Your task to perform on an android device: turn off data saver in the chrome app Image 0: 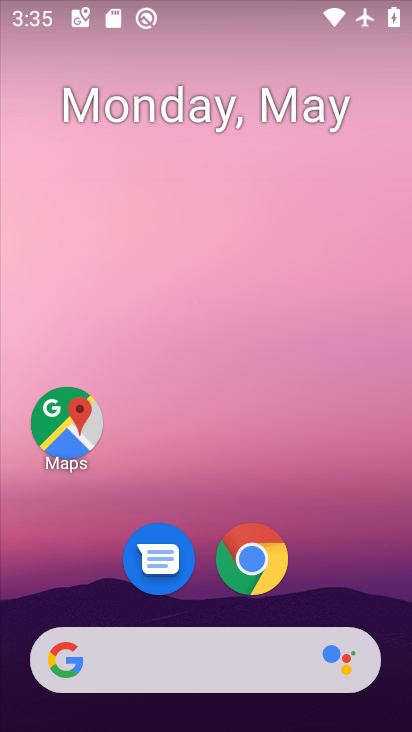
Step 0: drag from (294, 502) to (250, 181)
Your task to perform on an android device: turn off data saver in the chrome app Image 1: 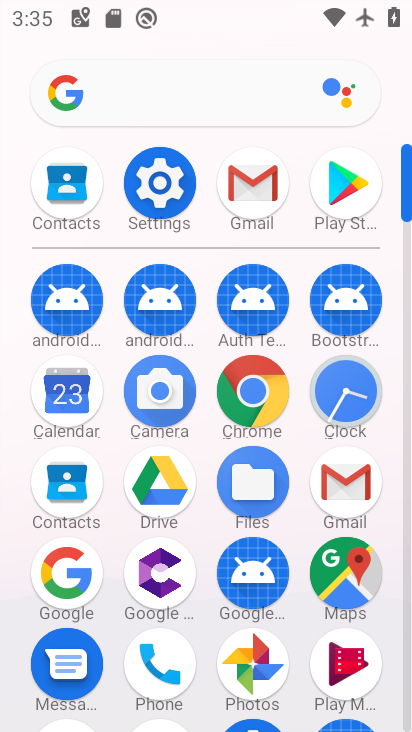
Step 1: click (265, 398)
Your task to perform on an android device: turn off data saver in the chrome app Image 2: 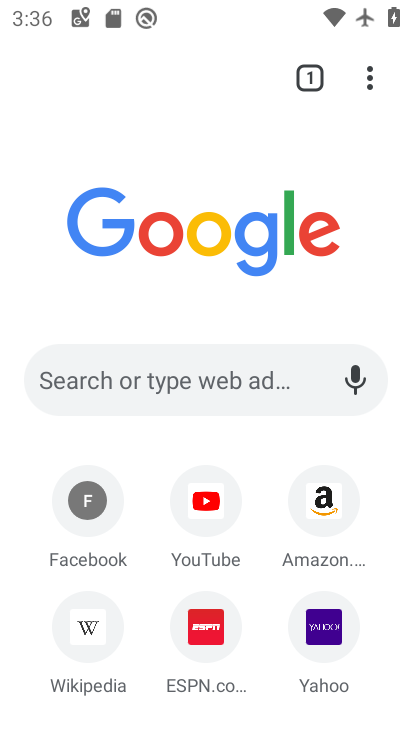
Step 2: click (369, 84)
Your task to perform on an android device: turn off data saver in the chrome app Image 3: 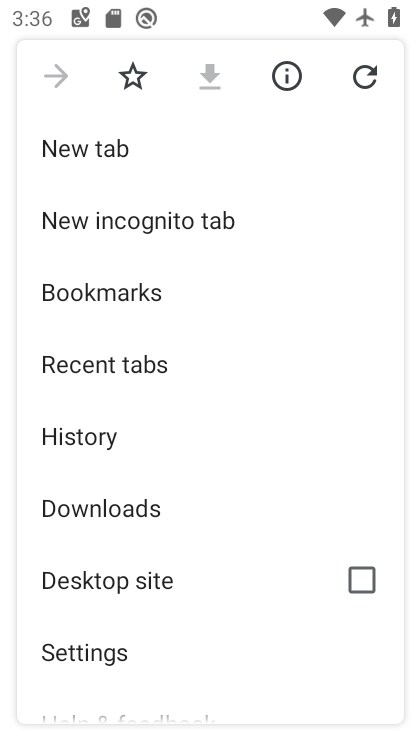
Step 3: click (106, 654)
Your task to perform on an android device: turn off data saver in the chrome app Image 4: 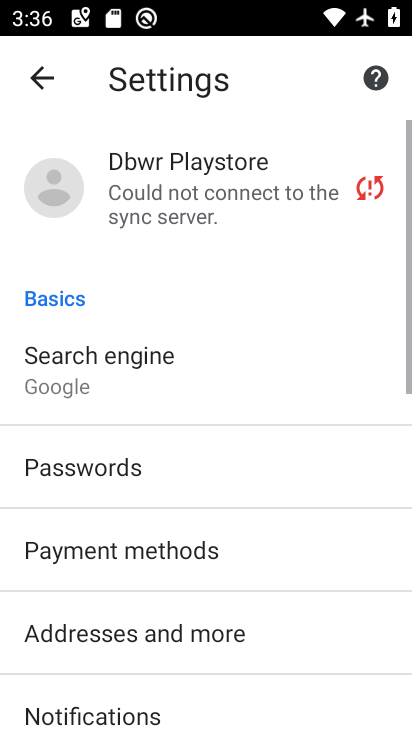
Step 4: drag from (123, 655) to (166, 188)
Your task to perform on an android device: turn off data saver in the chrome app Image 5: 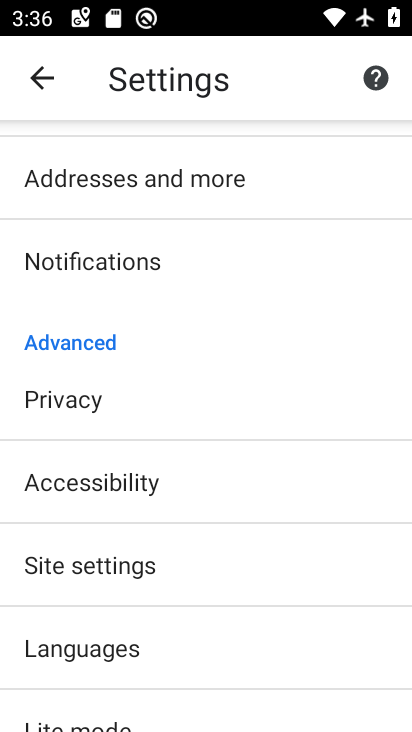
Step 5: drag from (172, 656) to (184, 376)
Your task to perform on an android device: turn off data saver in the chrome app Image 6: 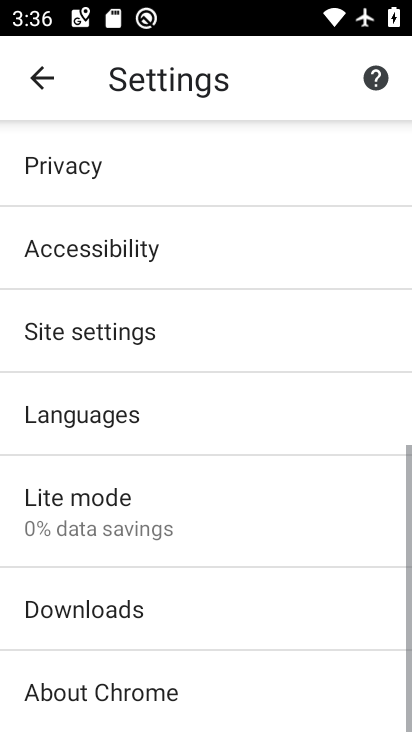
Step 6: click (118, 532)
Your task to perform on an android device: turn off data saver in the chrome app Image 7: 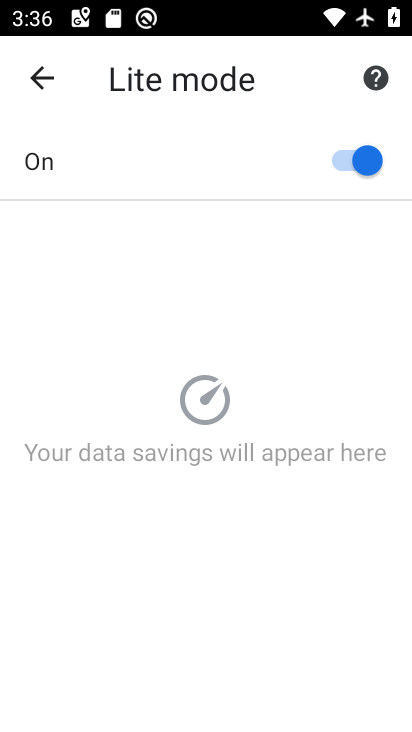
Step 7: click (340, 168)
Your task to perform on an android device: turn off data saver in the chrome app Image 8: 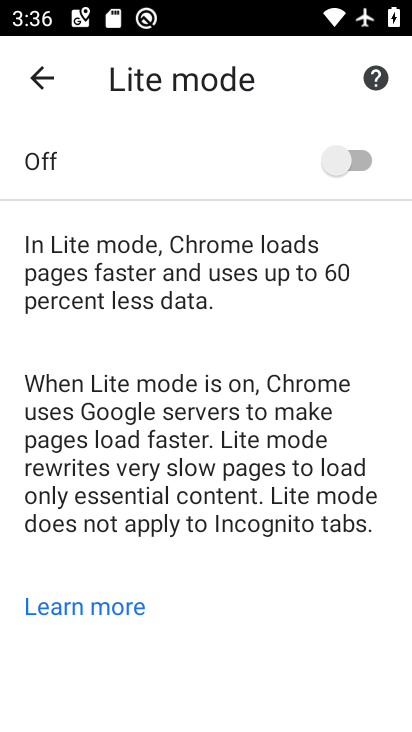
Step 8: task complete